Your task to perform on an android device: Open the web browser Image 0: 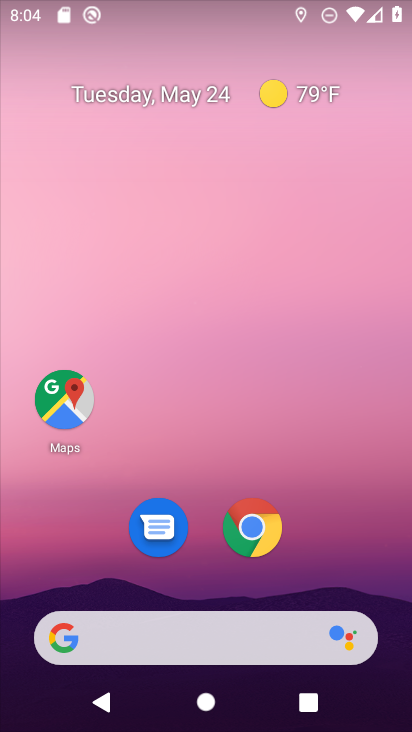
Step 0: click (265, 545)
Your task to perform on an android device: Open the web browser Image 1: 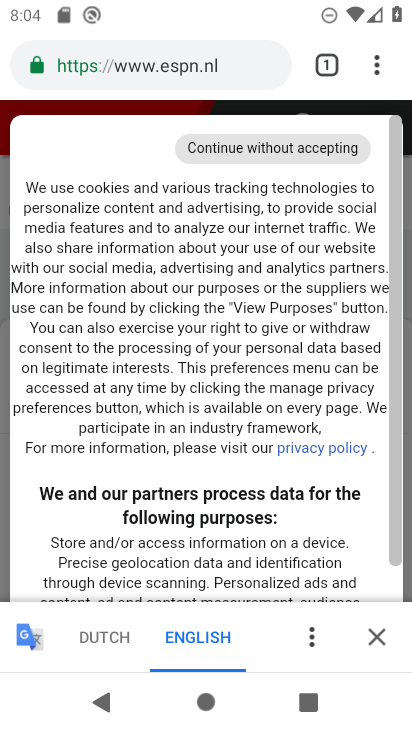
Step 1: task complete